Your task to perform on an android device: Search for Mexican restaurants on Maps Image 0: 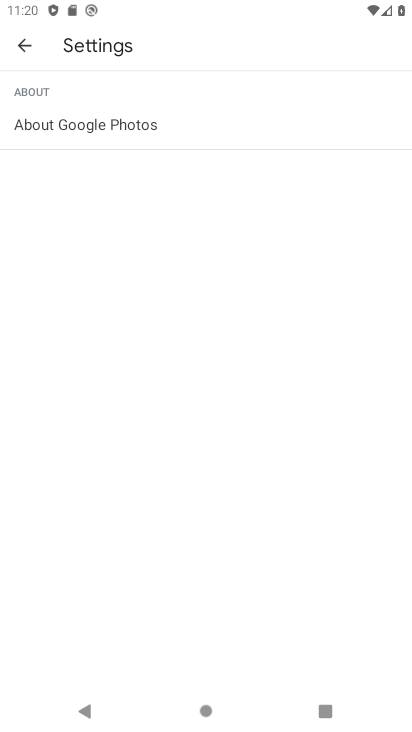
Step 0: press home button
Your task to perform on an android device: Search for Mexican restaurants on Maps Image 1: 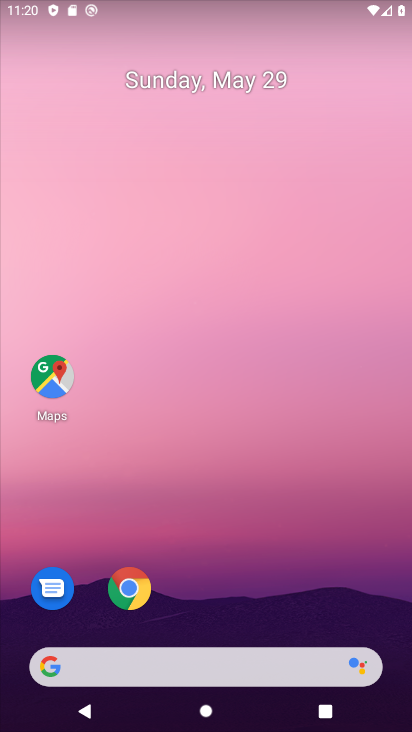
Step 1: drag from (256, 570) to (265, 52)
Your task to perform on an android device: Search for Mexican restaurants on Maps Image 2: 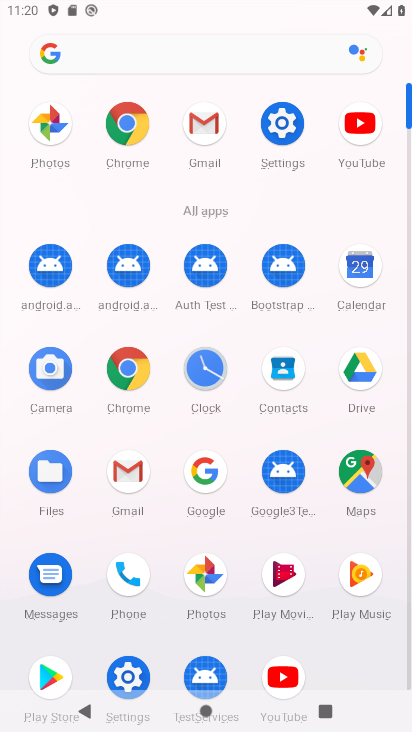
Step 2: click (368, 476)
Your task to perform on an android device: Search for Mexican restaurants on Maps Image 3: 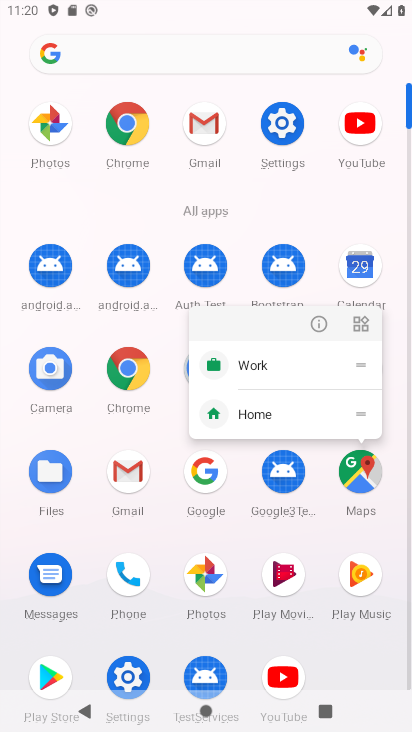
Step 3: click (357, 468)
Your task to perform on an android device: Search for Mexican restaurants on Maps Image 4: 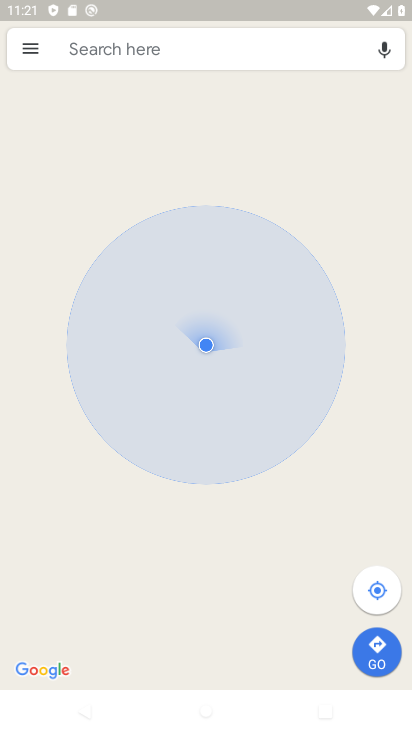
Step 4: click (182, 54)
Your task to perform on an android device: Search for Mexican restaurants on Maps Image 5: 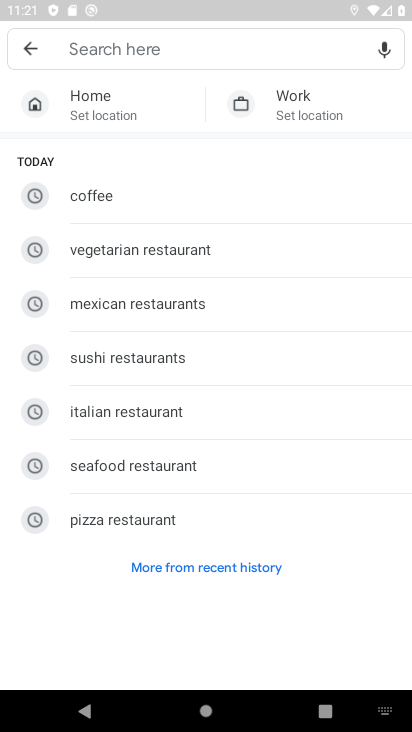
Step 5: click (185, 306)
Your task to perform on an android device: Search for Mexican restaurants on Maps Image 6: 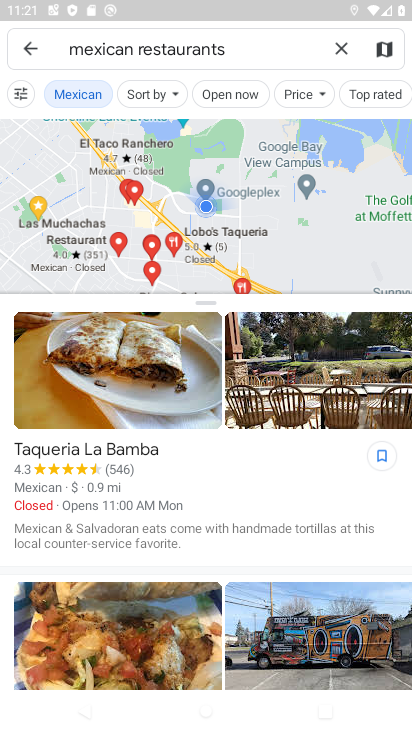
Step 6: task complete